Your task to perform on an android device: Search for pizza restaurants on Maps Image 0: 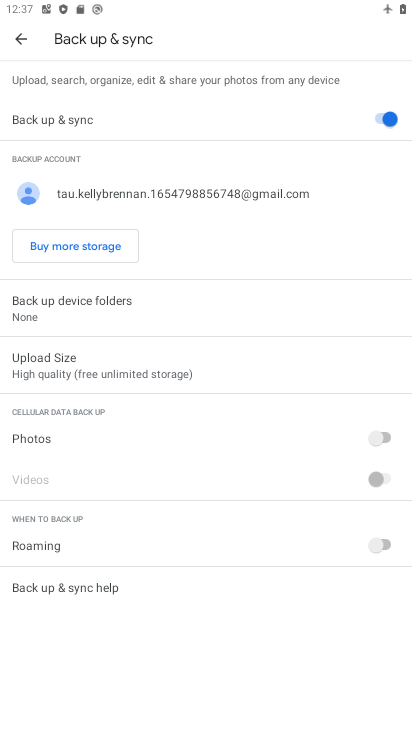
Step 0: press home button
Your task to perform on an android device: Search for pizza restaurants on Maps Image 1: 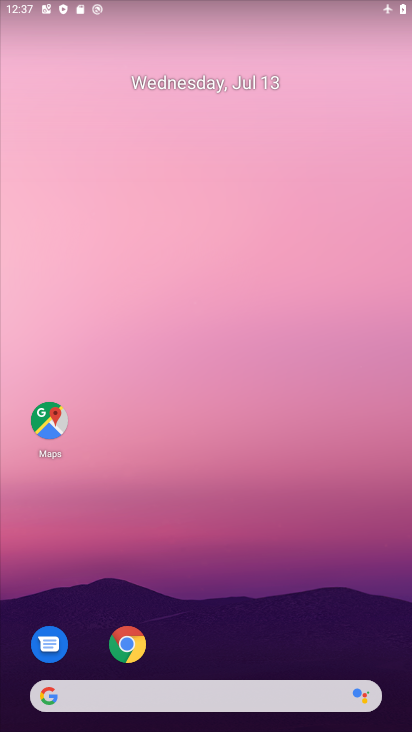
Step 1: drag from (261, 635) to (206, 102)
Your task to perform on an android device: Search for pizza restaurants on Maps Image 2: 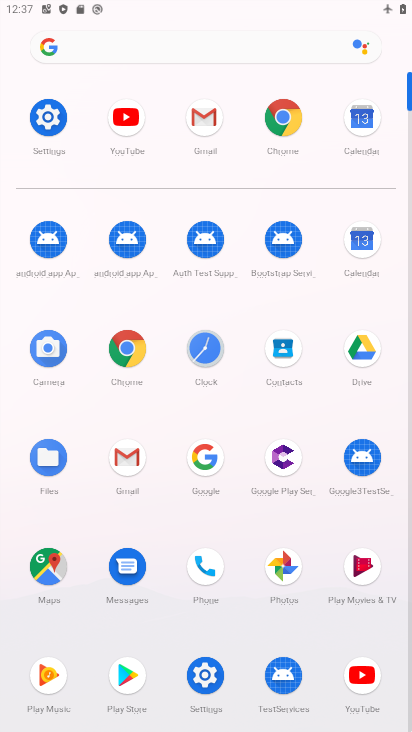
Step 2: click (55, 568)
Your task to perform on an android device: Search for pizza restaurants on Maps Image 3: 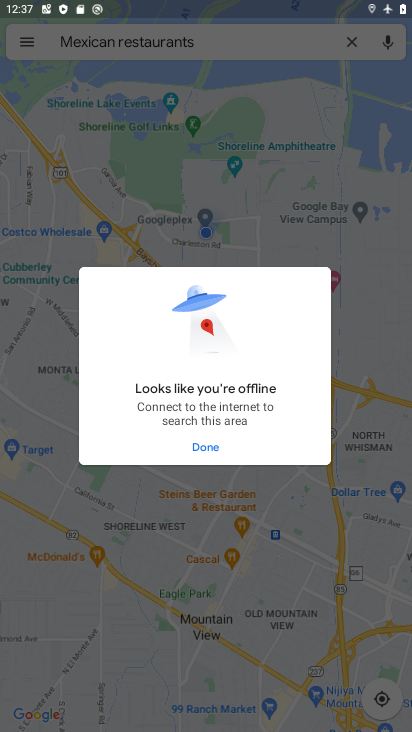
Step 3: click (219, 449)
Your task to perform on an android device: Search for pizza restaurants on Maps Image 4: 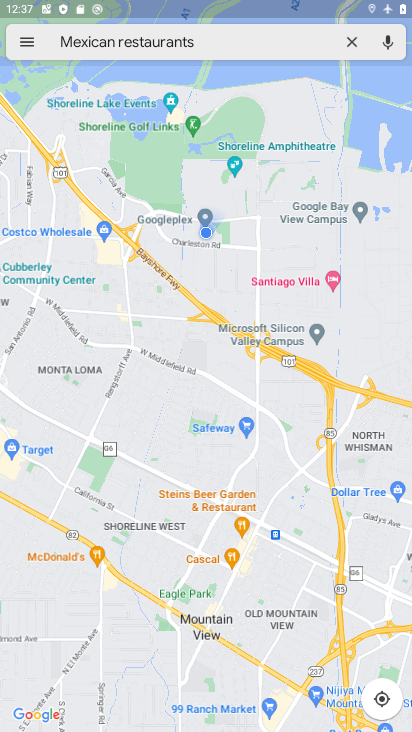
Step 4: click (251, 36)
Your task to perform on an android device: Search for pizza restaurants on Maps Image 5: 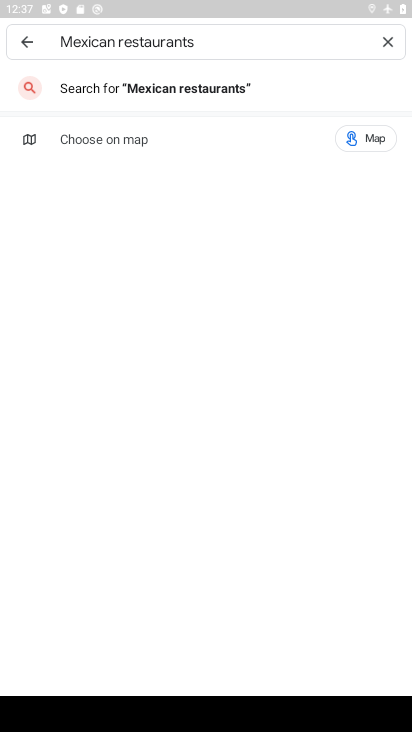
Step 5: click (390, 42)
Your task to perform on an android device: Search for pizza restaurants on Maps Image 6: 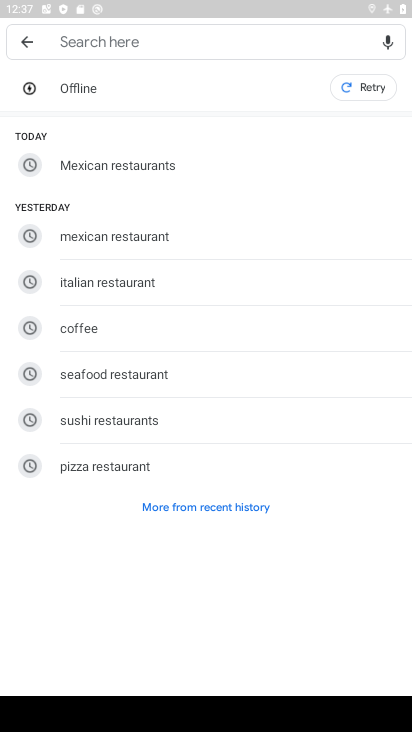
Step 6: type "pizza restaurants"
Your task to perform on an android device: Search for pizza restaurants on Maps Image 7: 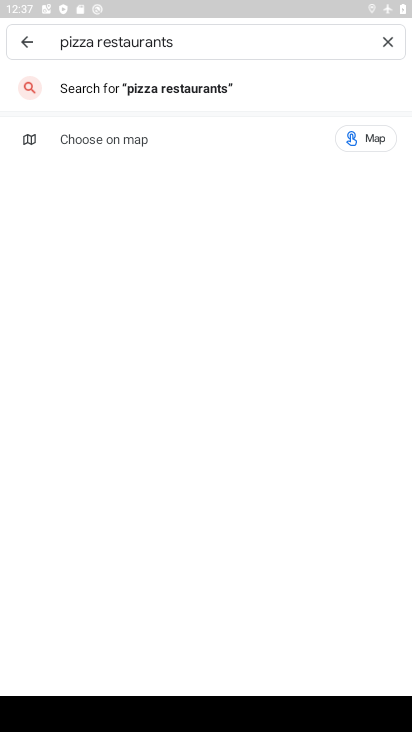
Step 7: press enter
Your task to perform on an android device: Search for pizza restaurants on Maps Image 8: 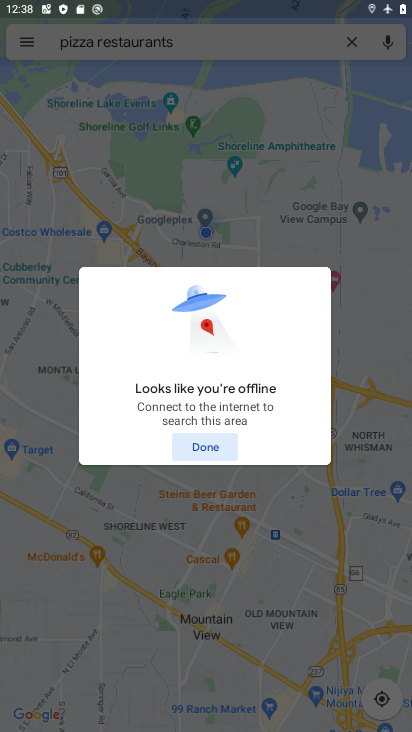
Step 8: task complete